Your task to perform on an android device: Open Youtube and go to the subscriptions tab Image 0: 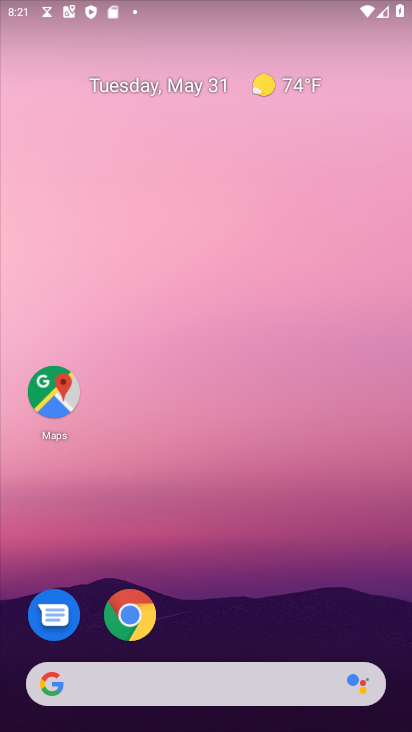
Step 0: press home button
Your task to perform on an android device: Open Youtube and go to the subscriptions tab Image 1: 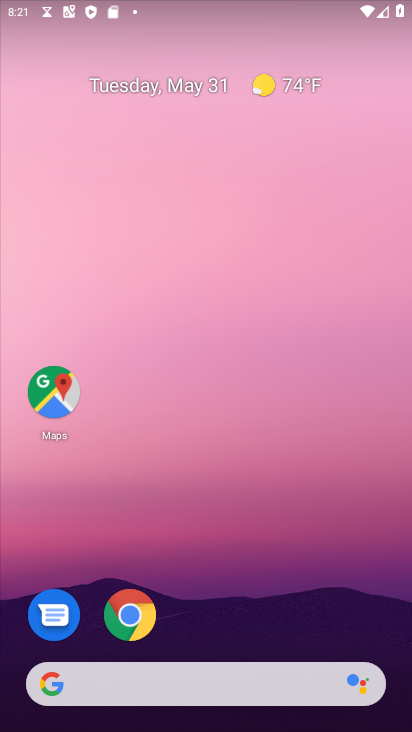
Step 1: drag from (134, 682) to (302, 105)
Your task to perform on an android device: Open Youtube and go to the subscriptions tab Image 2: 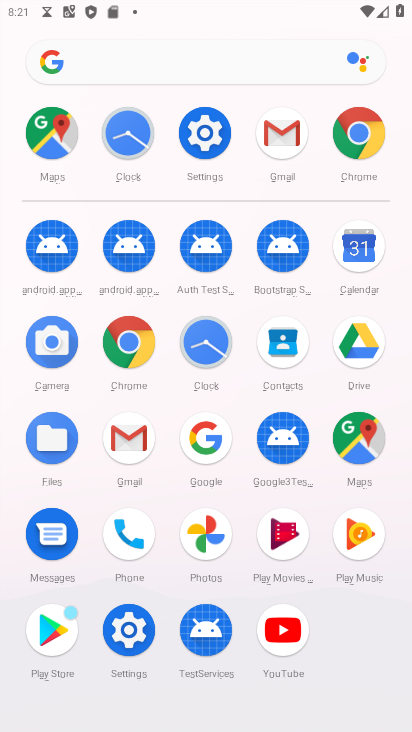
Step 2: click (291, 641)
Your task to perform on an android device: Open Youtube and go to the subscriptions tab Image 3: 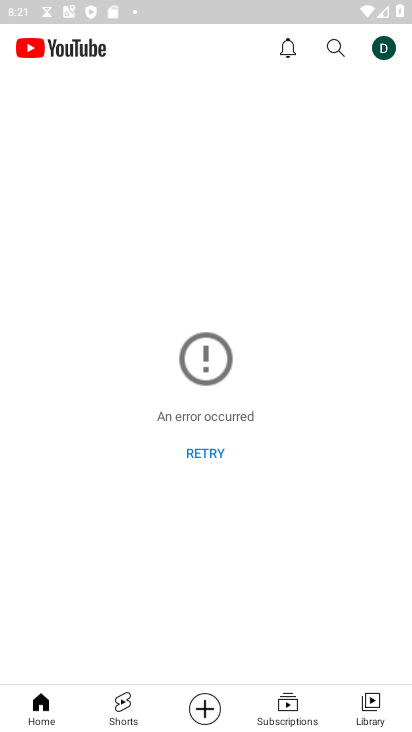
Step 3: click (212, 451)
Your task to perform on an android device: Open Youtube and go to the subscriptions tab Image 4: 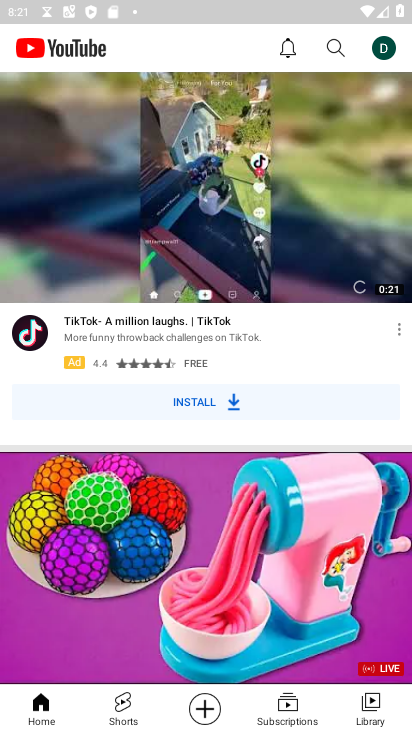
Step 4: click (283, 708)
Your task to perform on an android device: Open Youtube and go to the subscriptions tab Image 5: 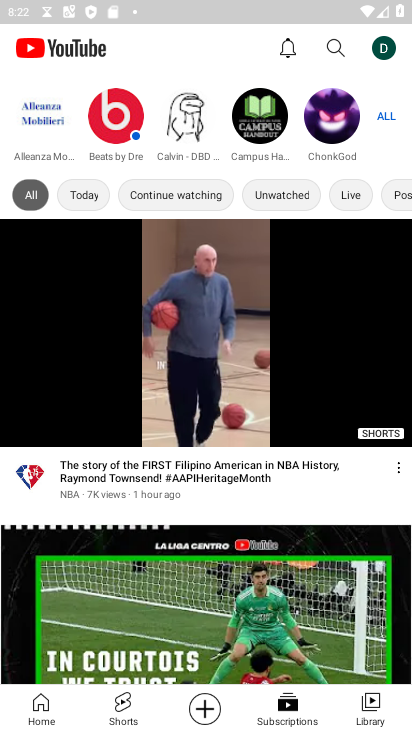
Step 5: task complete